Your task to perform on an android device: Check the news Image 0: 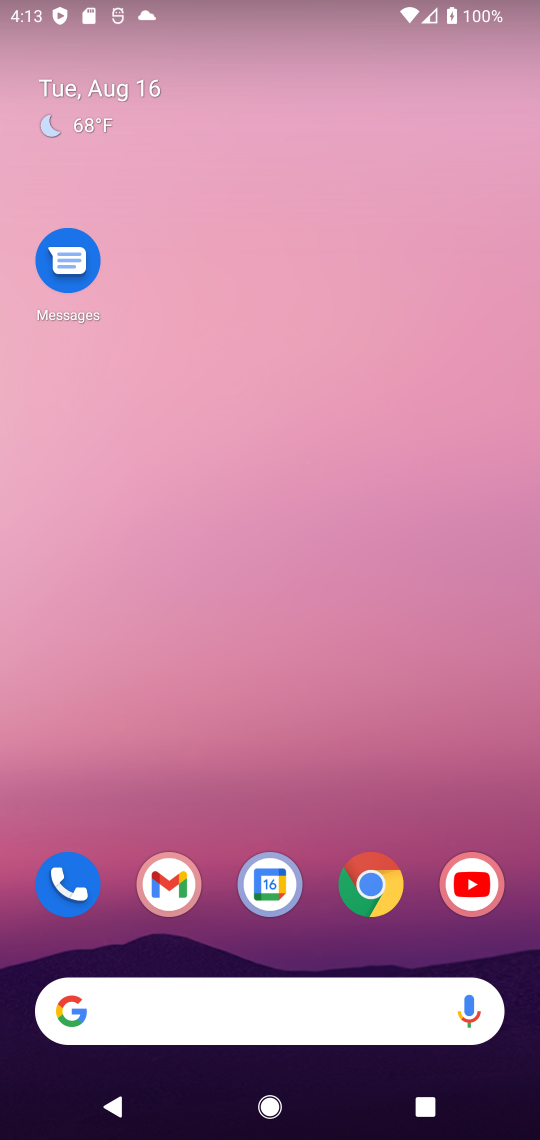
Step 0: click (167, 998)
Your task to perform on an android device: Check the news Image 1: 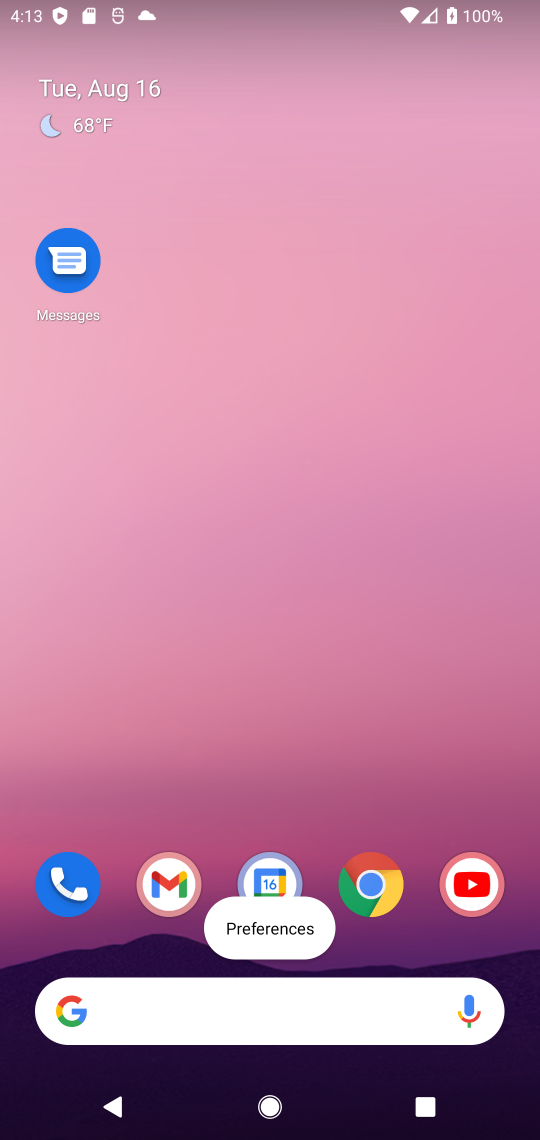
Step 1: click (158, 1020)
Your task to perform on an android device: Check the news Image 2: 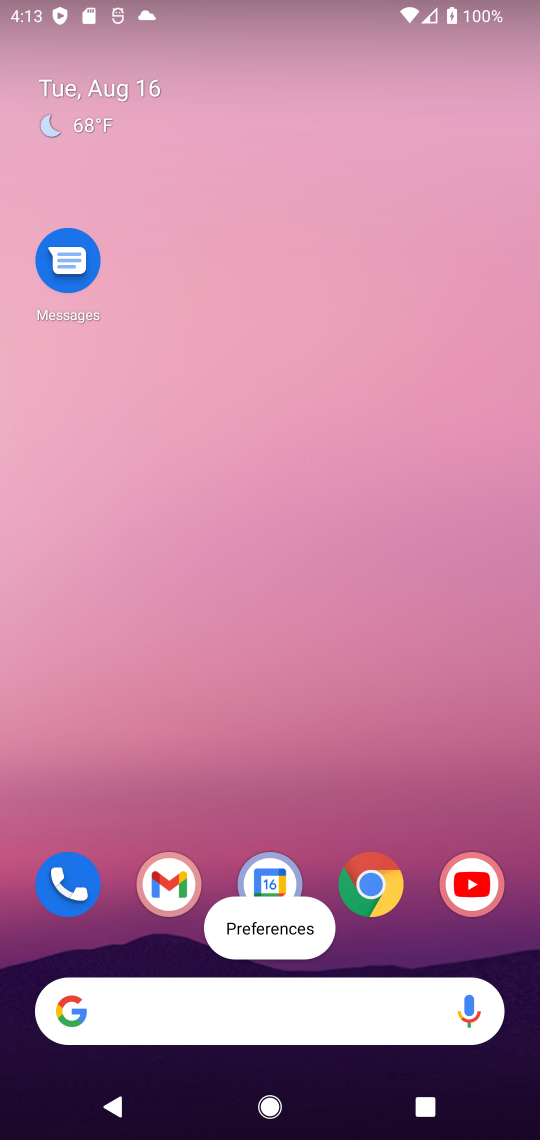
Step 2: click (158, 1020)
Your task to perform on an android device: Check the news Image 3: 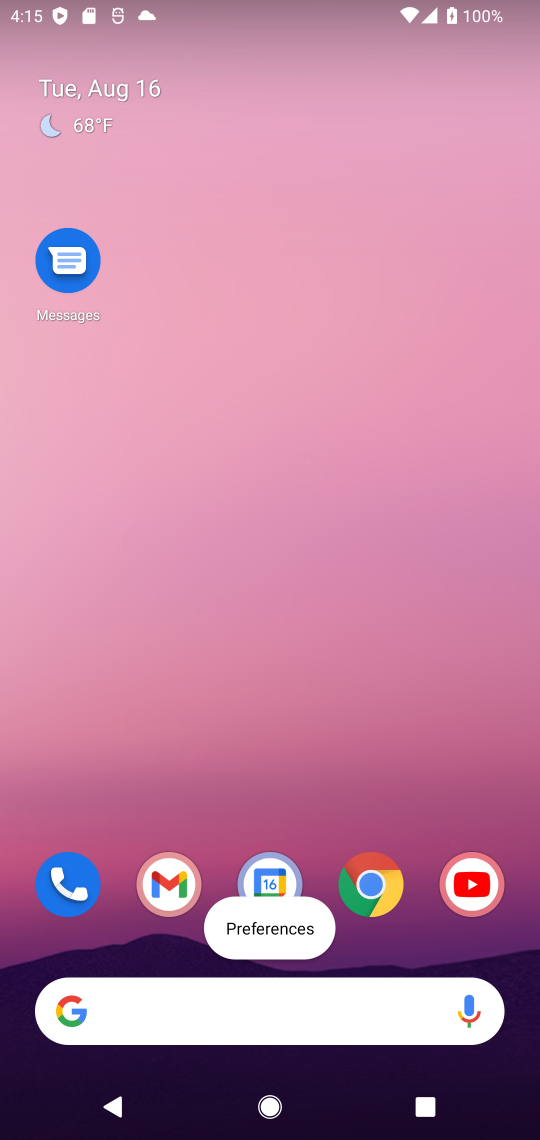
Step 3: task complete